Your task to perform on an android device: Open wifi settings Image 0: 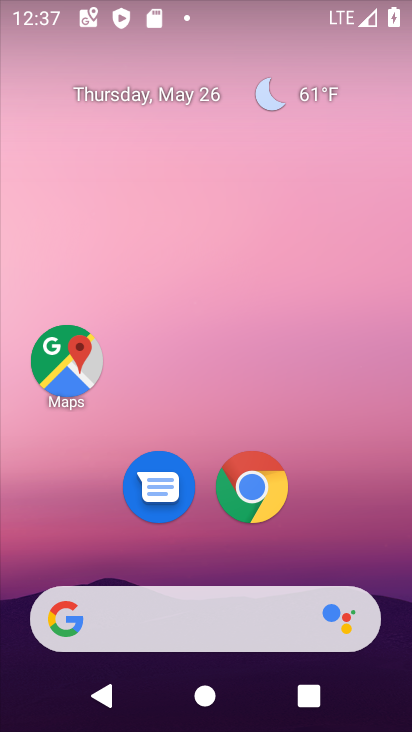
Step 0: drag from (250, 599) to (214, 240)
Your task to perform on an android device: Open wifi settings Image 1: 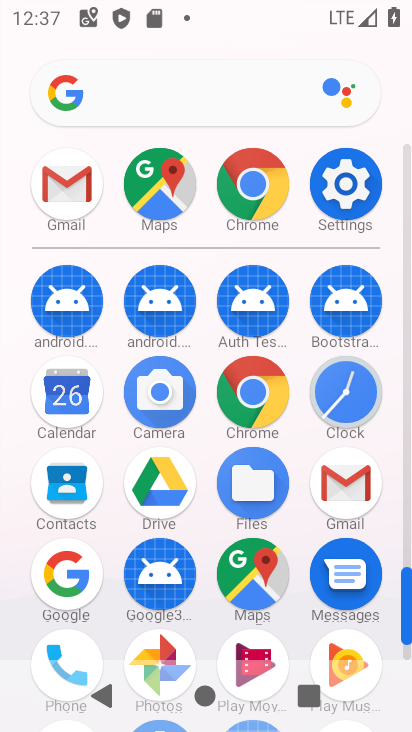
Step 1: click (358, 164)
Your task to perform on an android device: Open wifi settings Image 2: 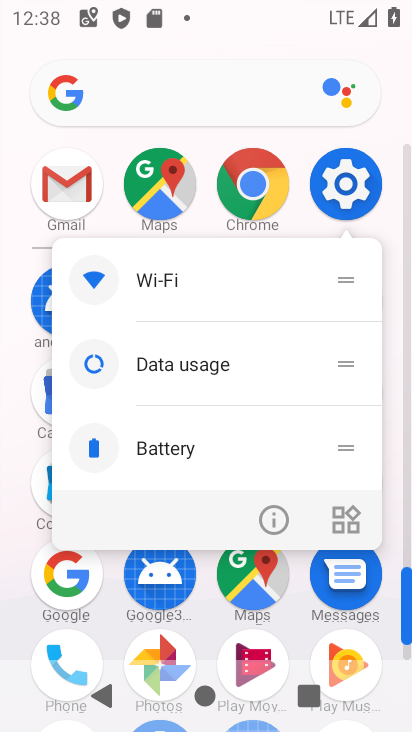
Step 2: click (155, 294)
Your task to perform on an android device: Open wifi settings Image 3: 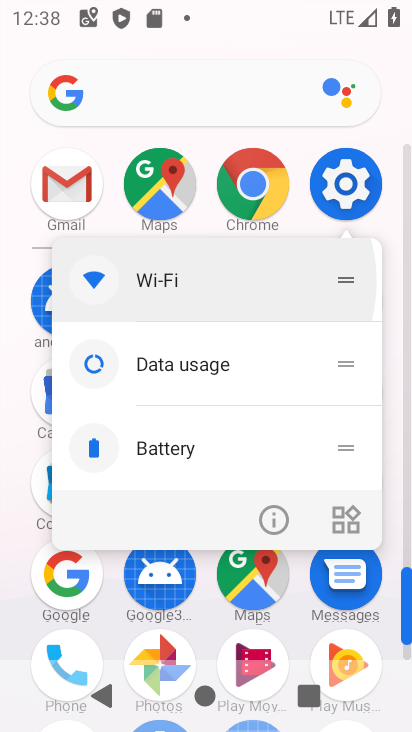
Step 3: click (155, 294)
Your task to perform on an android device: Open wifi settings Image 4: 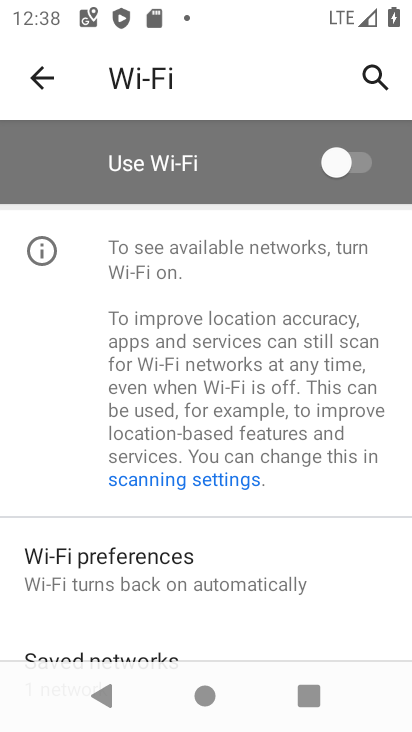
Step 4: click (328, 168)
Your task to perform on an android device: Open wifi settings Image 5: 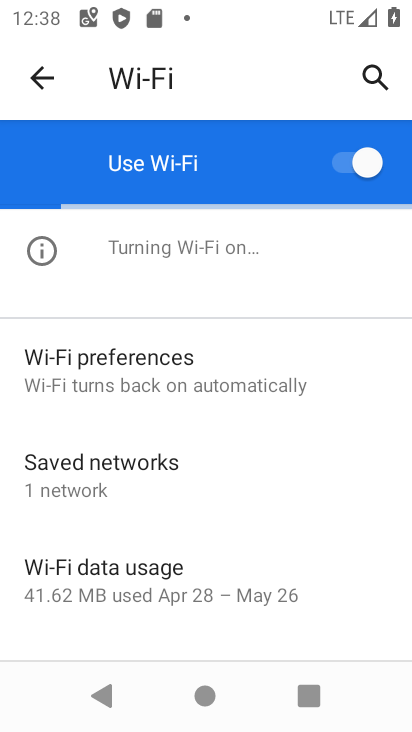
Step 5: click (328, 168)
Your task to perform on an android device: Open wifi settings Image 6: 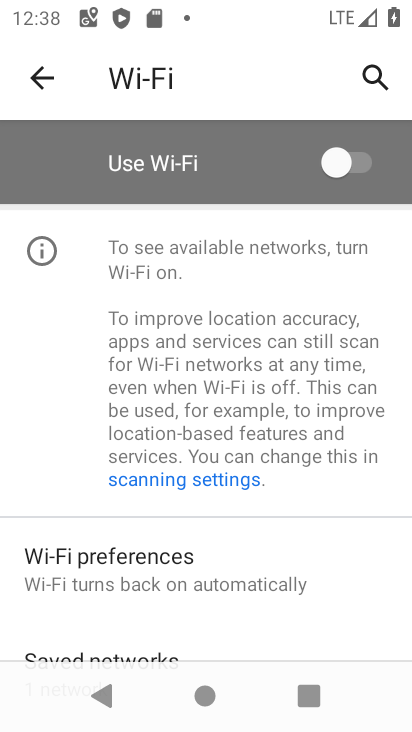
Step 6: click (331, 155)
Your task to perform on an android device: Open wifi settings Image 7: 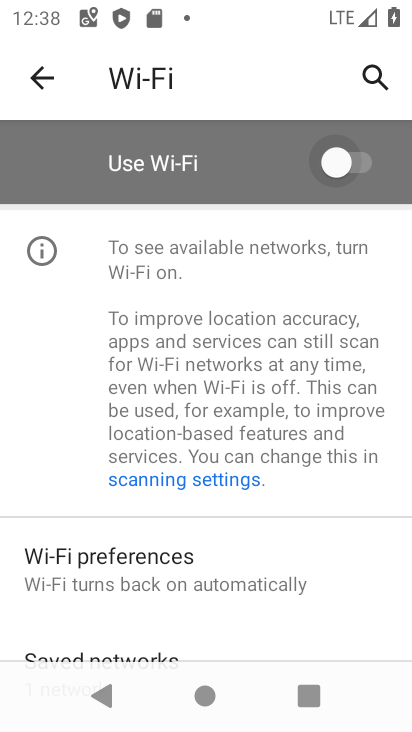
Step 7: click (332, 154)
Your task to perform on an android device: Open wifi settings Image 8: 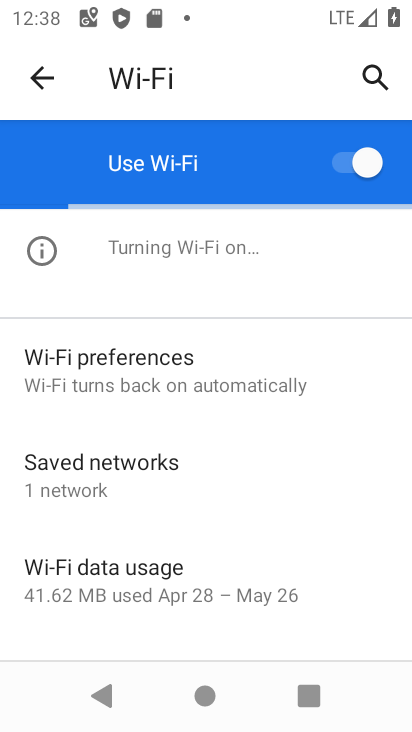
Step 8: click (332, 154)
Your task to perform on an android device: Open wifi settings Image 9: 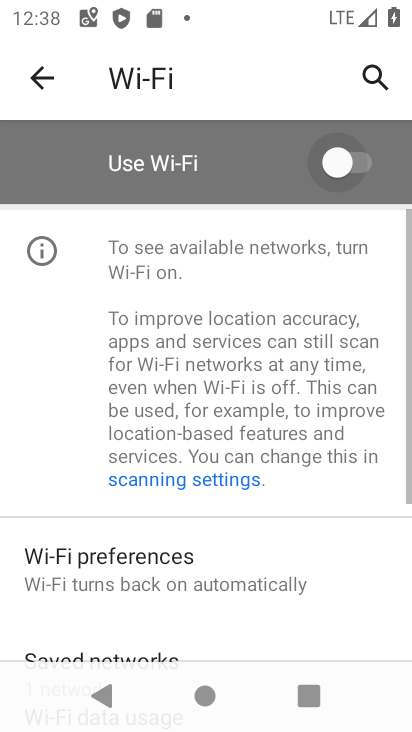
Step 9: click (333, 155)
Your task to perform on an android device: Open wifi settings Image 10: 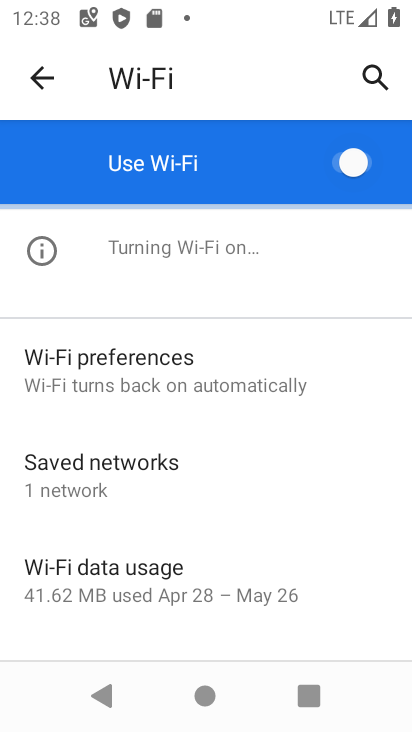
Step 10: click (333, 155)
Your task to perform on an android device: Open wifi settings Image 11: 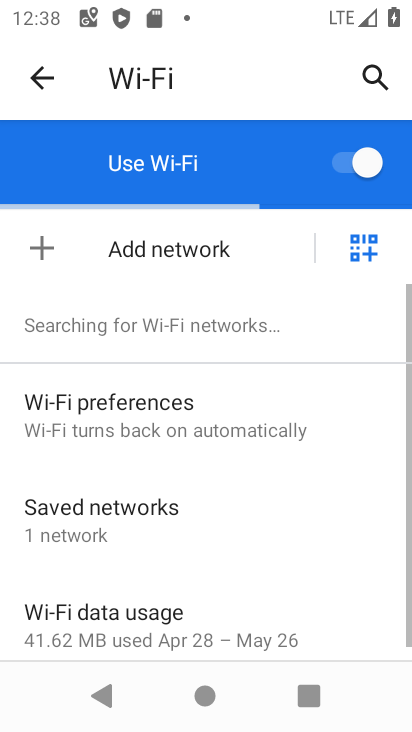
Step 11: click (343, 156)
Your task to perform on an android device: Open wifi settings Image 12: 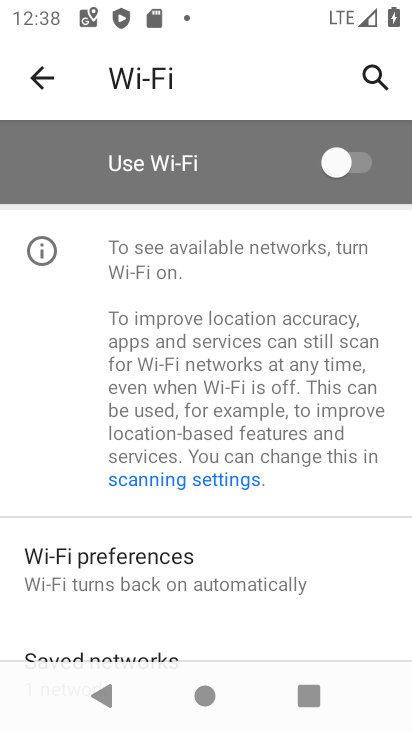
Step 12: click (330, 164)
Your task to perform on an android device: Open wifi settings Image 13: 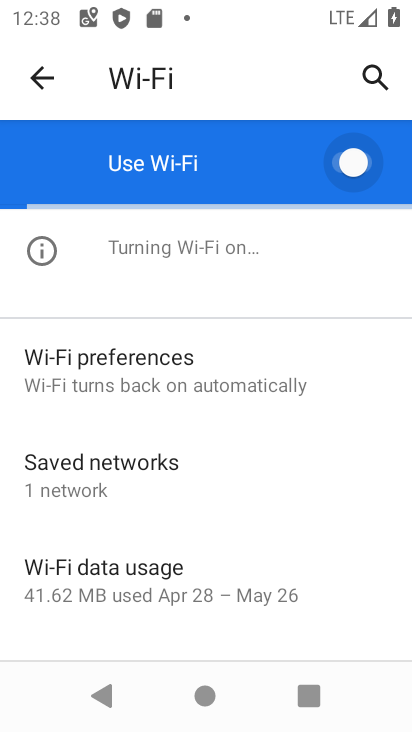
Step 13: click (331, 163)
Your task to perform on an android device: Open wifi settings Image 14: 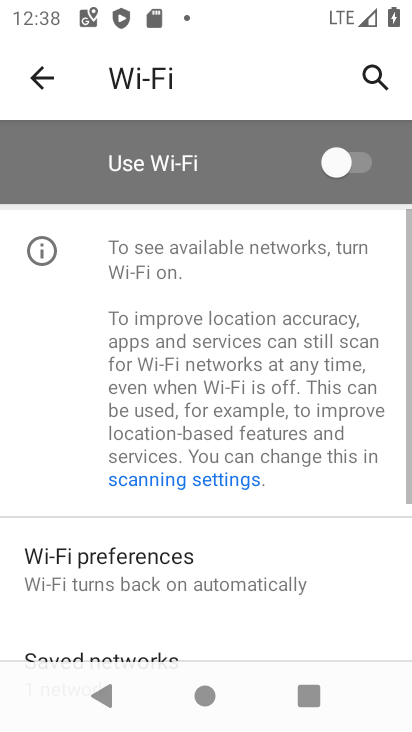
Step 14: click (331, 163)
Your task to perform on an android device: Open wifi settings Image 15: 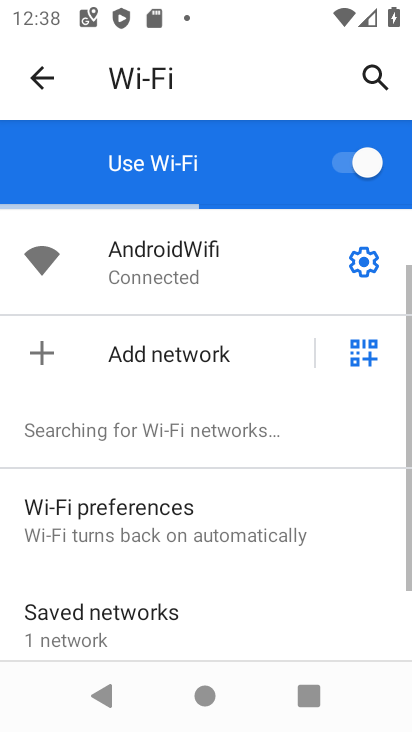
Step 15: task complete